Your task to perform on an android device: What's on my calendar tomorrow? Image 0: 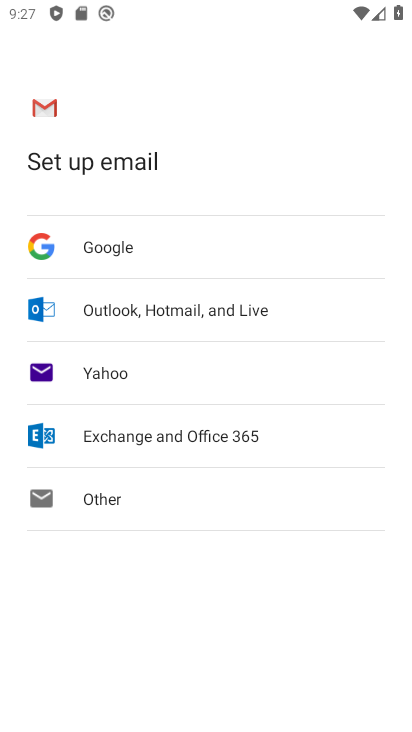
Step 0: press home button
Your task to perform on an android device: What's on my calendar tomorrow? Image 1: 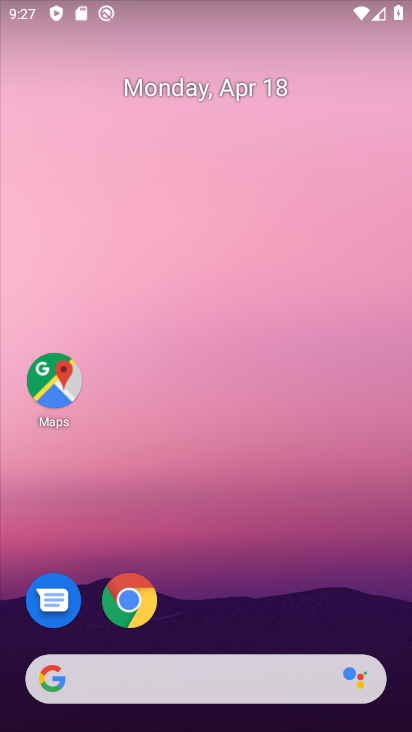
Step 1: drag from (235, 549) to (209, 0)
Your task to perform on an android device: What's on my calendar tomorrow? Image 2: 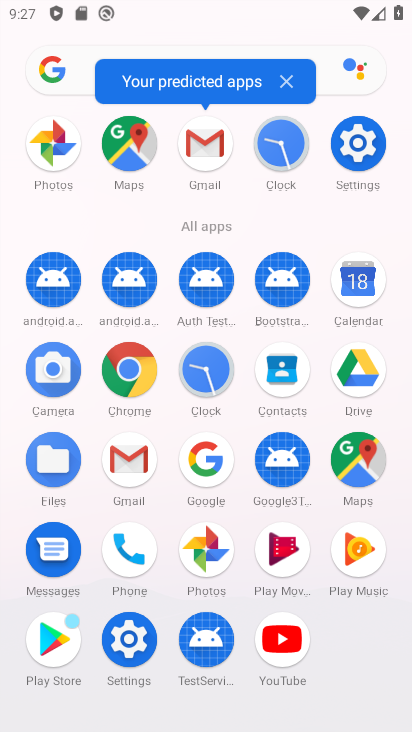
Step 2: click (354, 274)
Your task to perform on an android device: What's on my calendar tomorrow? Image 3: 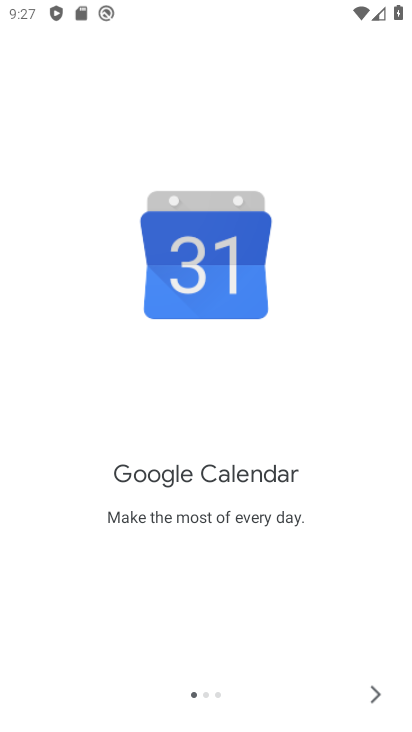
Step 3: click (375, 693)
Your task to perform on an android device: What's on my calendar tomorrow? Image 4: 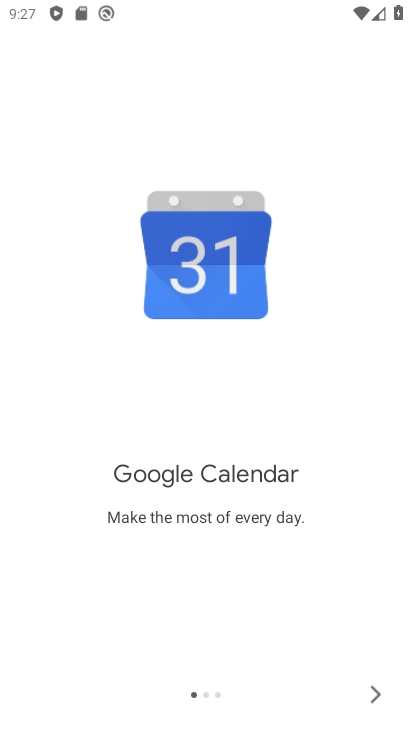
Step 4: click (375, 693)
Your task to perform on an android device: What's on my calendar tomorrow? Image 5: 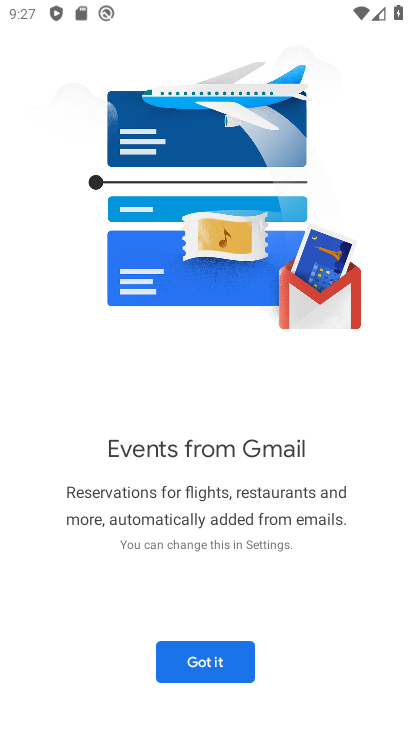
Step 5: click (211, 661)
Your task to perform on an android device: What's on my calendar tomorrow? Image 6: 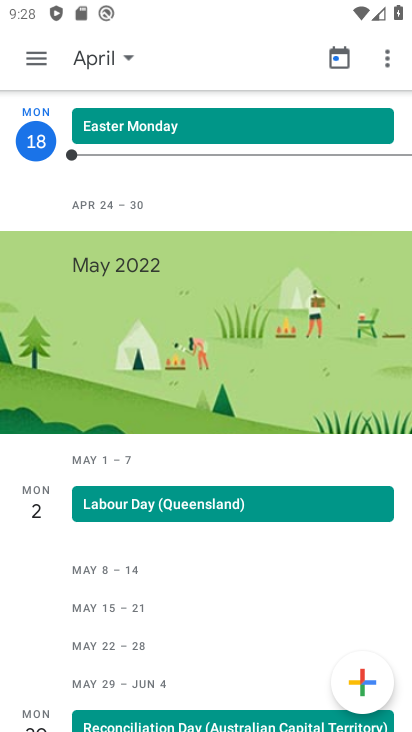
Step 6: click (26, 55)
Your task to perform on an android device: What's on my calendar tomorrow? Image 7: 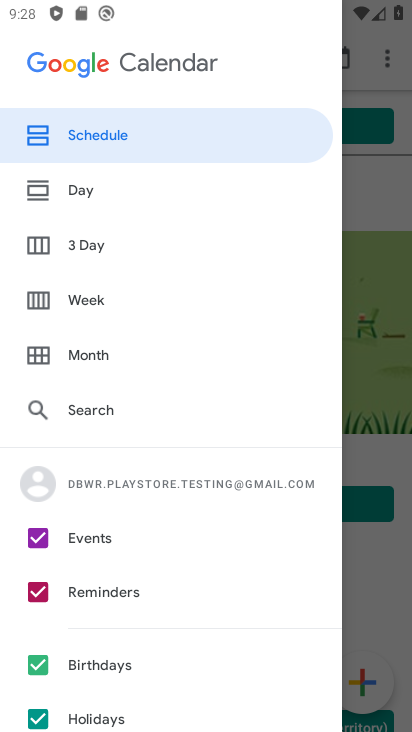
Step 7: click (79, 192)
Your task to perform on an android device: What's on my calendar tomorrow? Image 8: 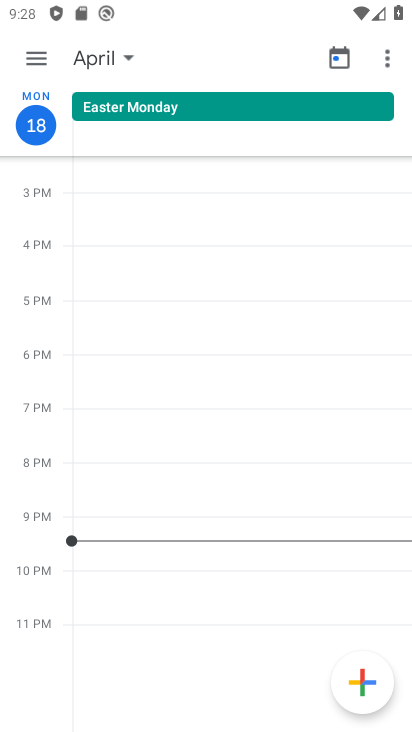
Step 8: click (122, 54)
Your task to perform on an android device: What's on my calendar tomorrow? Image 9: 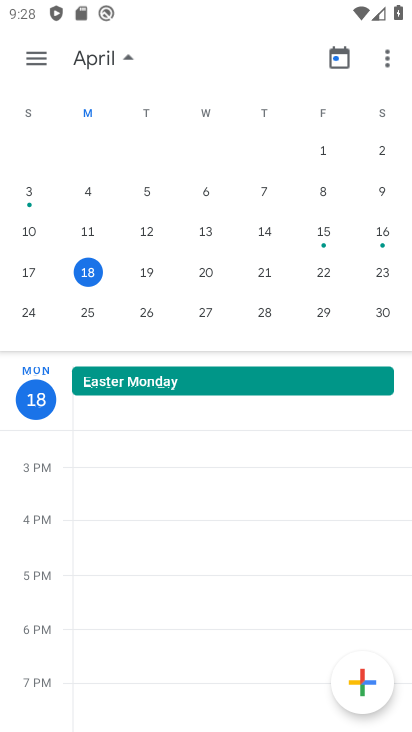
Step 9: click (140, 270)
Your task to perform on an android device: What's on my calendar tomorrow? Image 10: 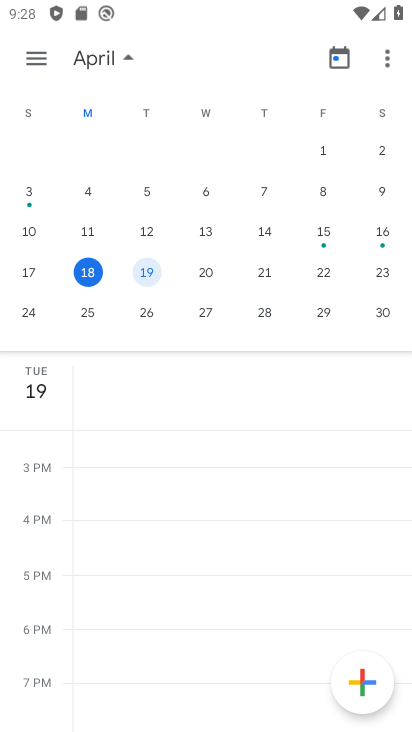
Step 10: task complete